Your task to perform on an android device: Open sound settings Image 0: 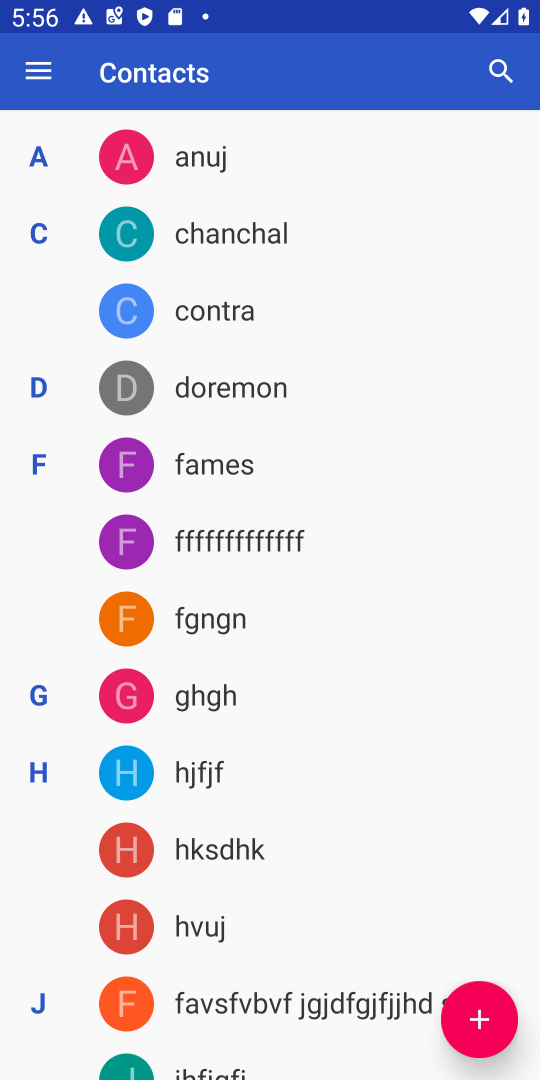
Step 0: press home button
Your task to perform on an android device: Open sound settings Image 1: 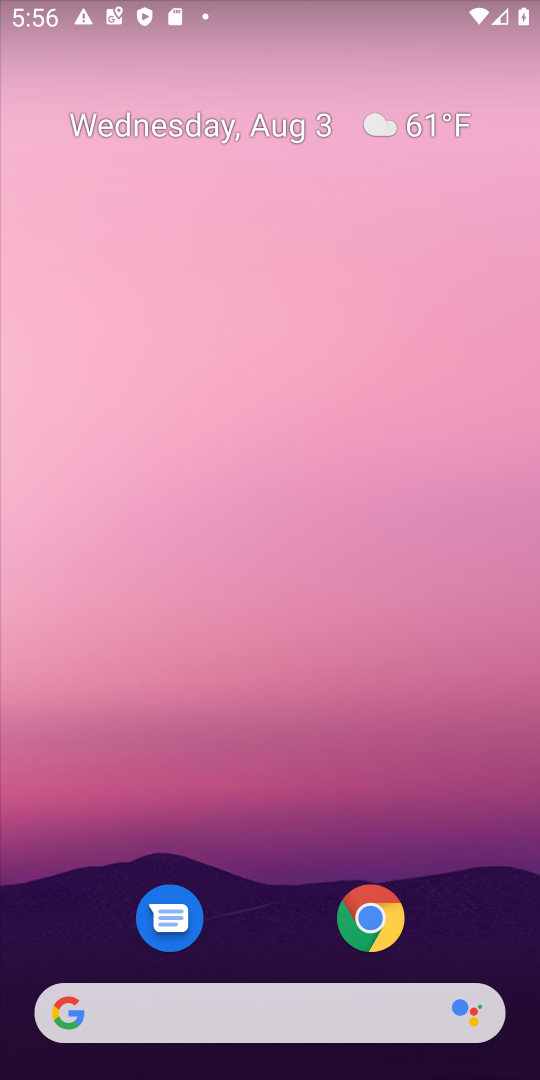
Step 1: drag from (269, 918) to (314, 120)
Your task to perform on an android device: Open sound settings Image 2: 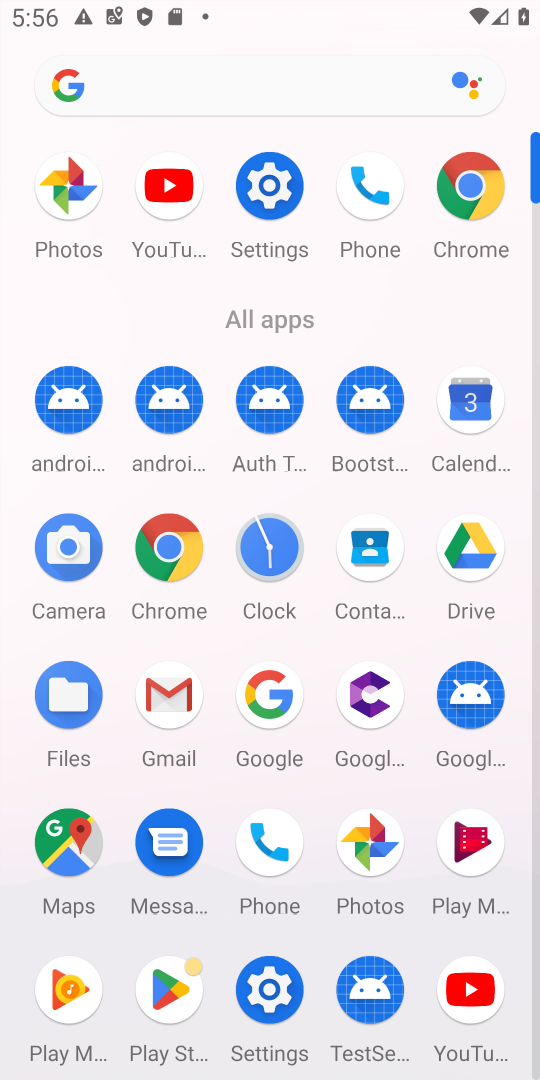
Step 2: click (273, 177)
Your task to perform on an android device: Open sound settings Image 3: 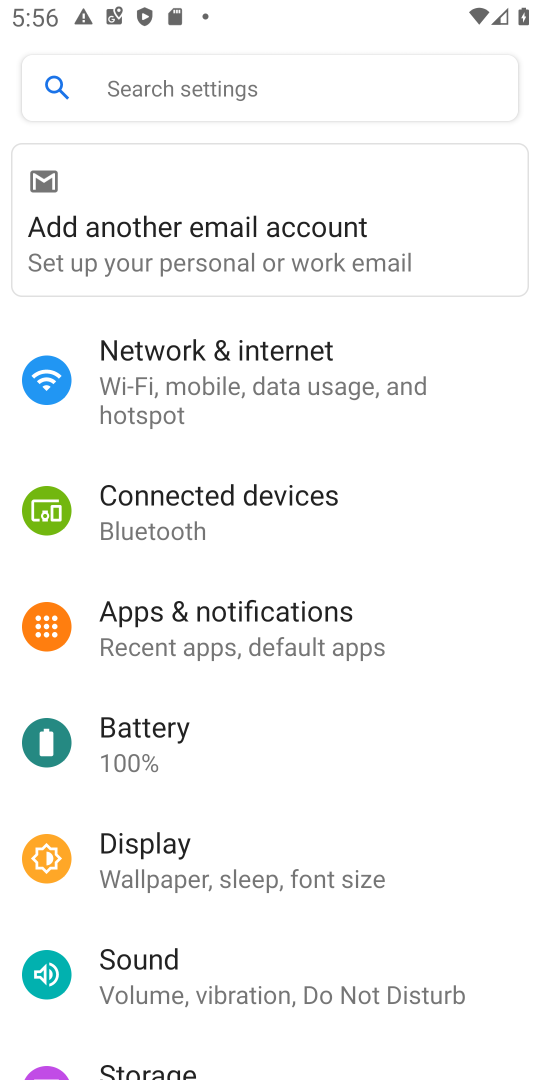
Step 3: click (182, 955)
Your task to perform on an android device: Open sound settings Image 4: 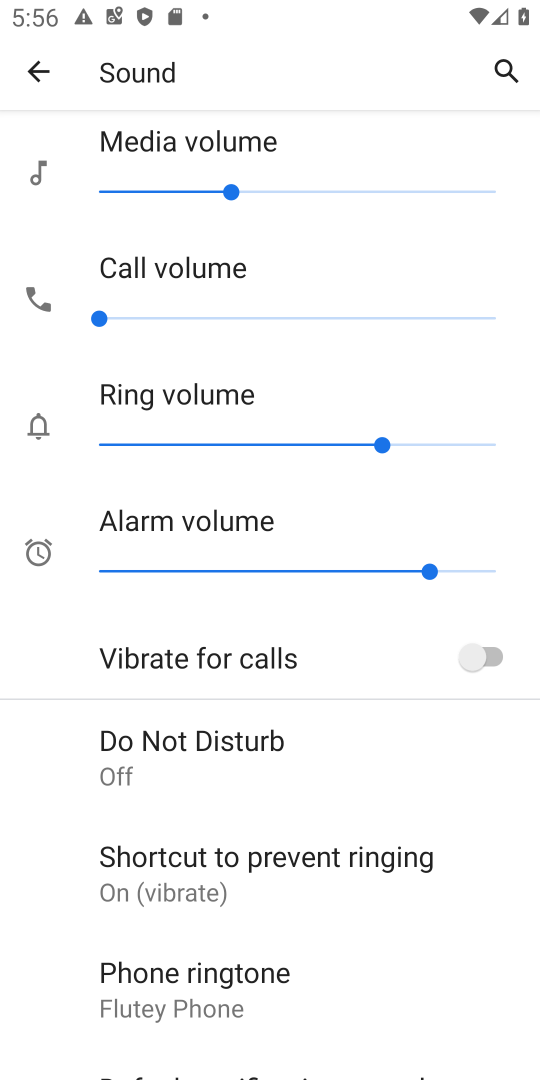
Step 4: task complete